Your task to perform on an android device: check the backup settings in the google photos Image 0: 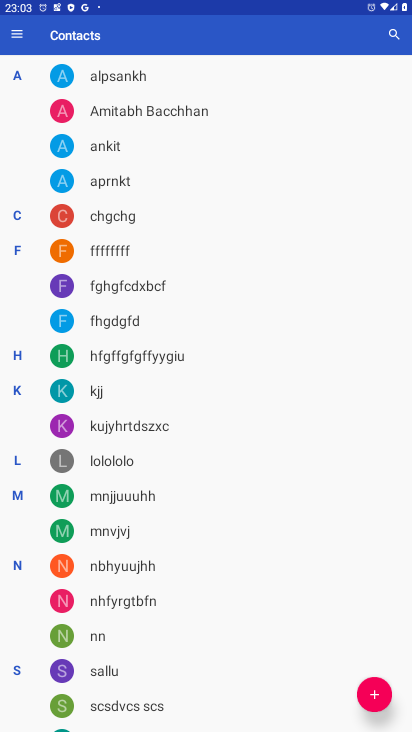
Step 0: press home button
Your task to perform on an android device: check the backup settings in the google photos Image 1: 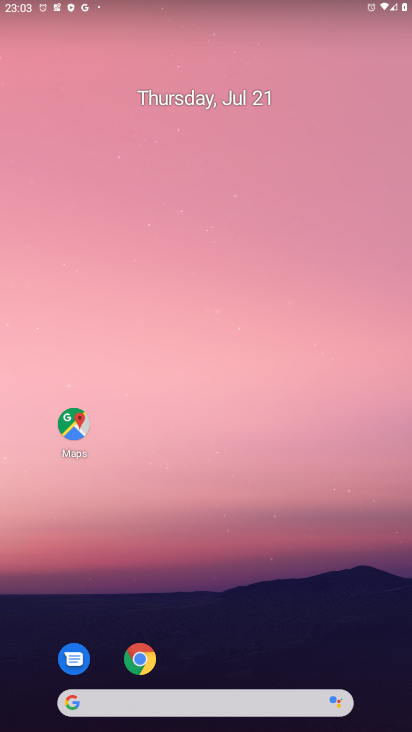
Step 1: drag from (191, 700) to (197, 149)
Your task to perform on an android device: check the backup settings in the google photos Image 2: 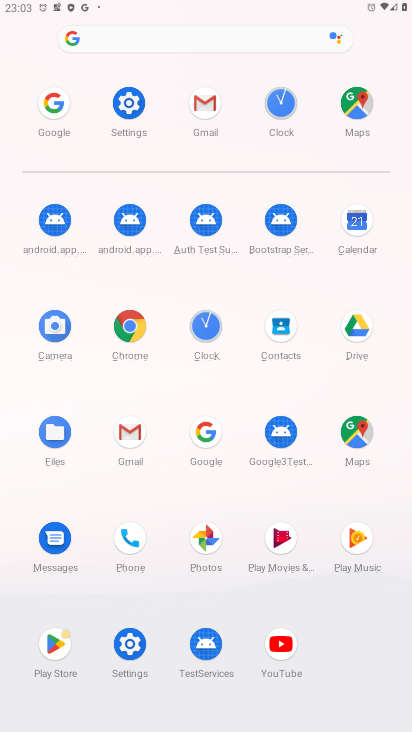
Step 2: click (207, 537)
Your task to perform on an android device: check the backup settings in the google photos Image 3: 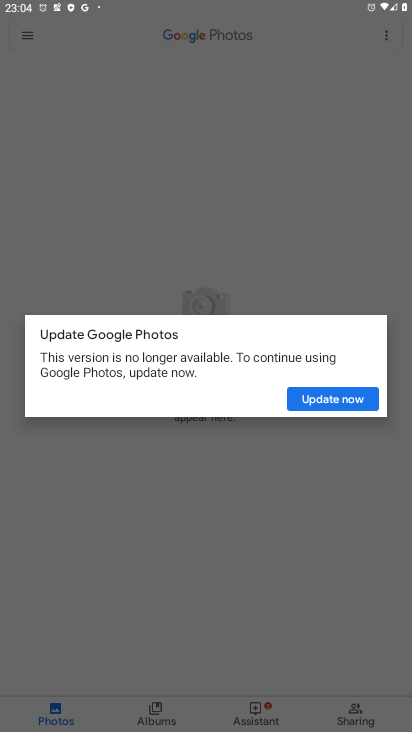
Step 3: click (335, 399)
Your task to perform on an android device: check the backup settings in the google photos Image 4: 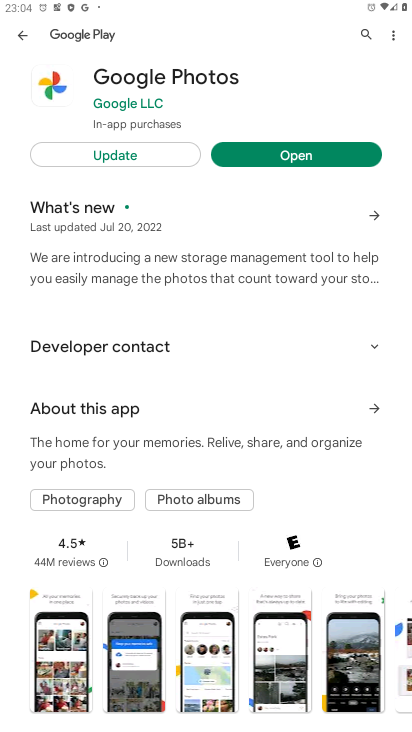
Step 4: click (117, 155)
Your task to perform on an android device: check the backup settings in the google photos Image 5: 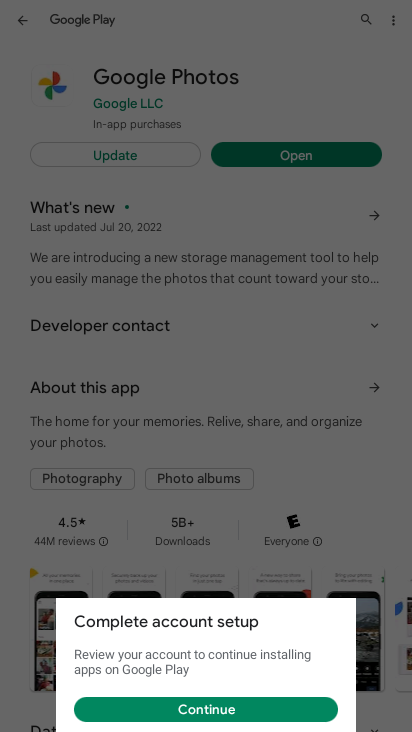
Step 5: click (217, 710)
Your task to perform on an android device: check the backup settings in the google photos Image 6: 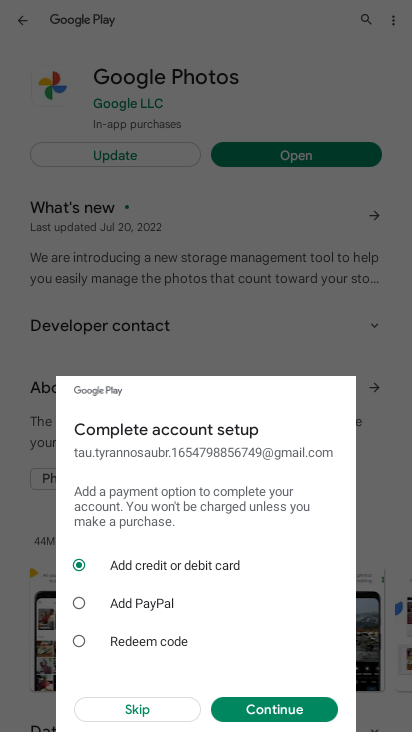
Step 6: click (138, 705)
Your task to perform on an android device: check the backup settings in the google photos Image 7: 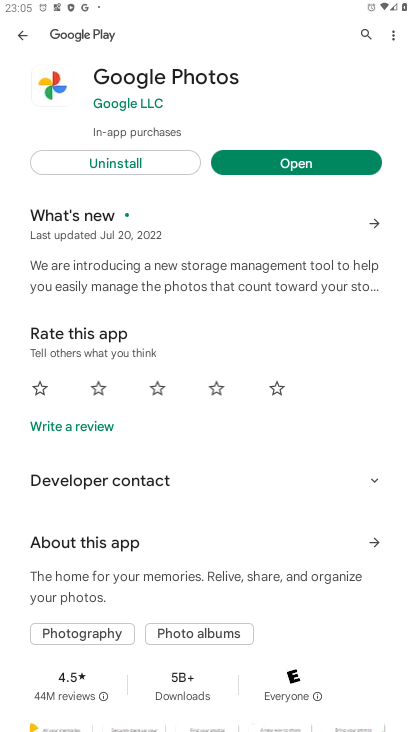
Step 7: click (299, 163)
Your task to perform on an android device: check the backup settings in the google photos Image 8: 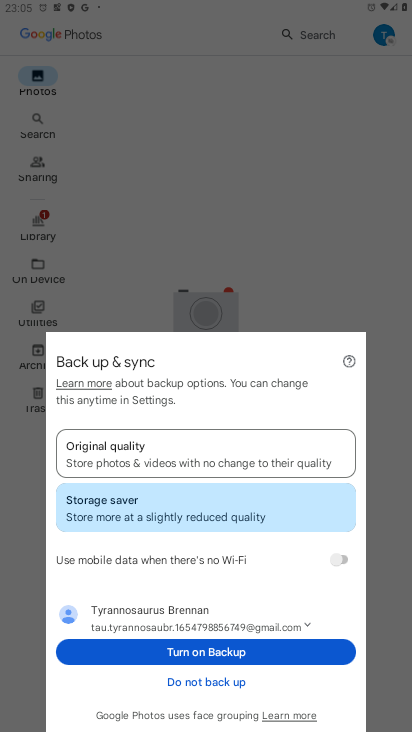
Step 8: click (270, 658)
Your task to perform on an android device: check the backup settings in the google photos Image 9: 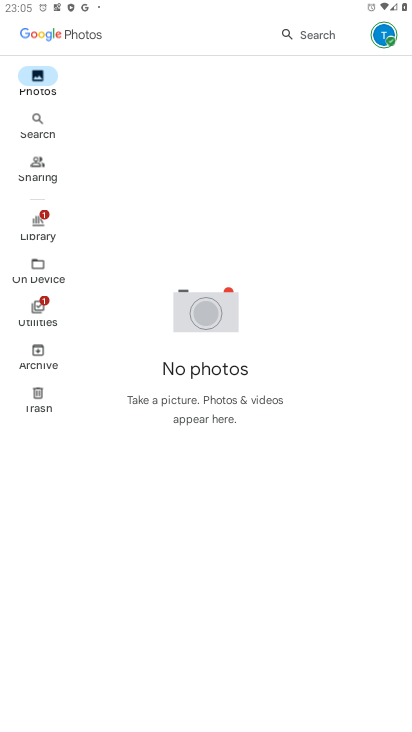
Step 9: click (383, 40)
Your task to perform on an android device: check the backup settings in the google photos Image 10: 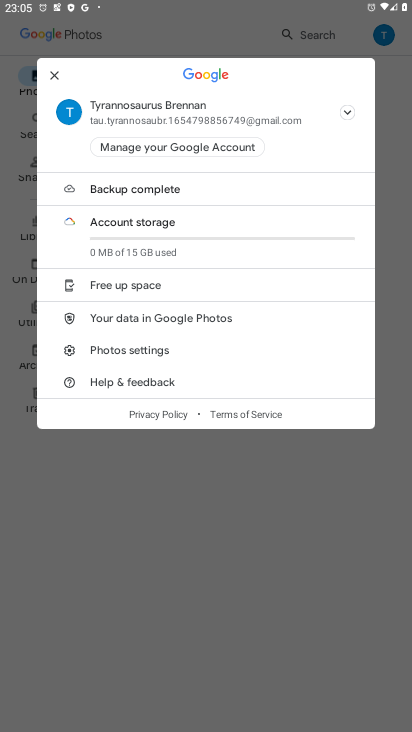
Step 10: click (146, 354)
Your task to perform on an android device: check the backup settings in the google photos Image 11: 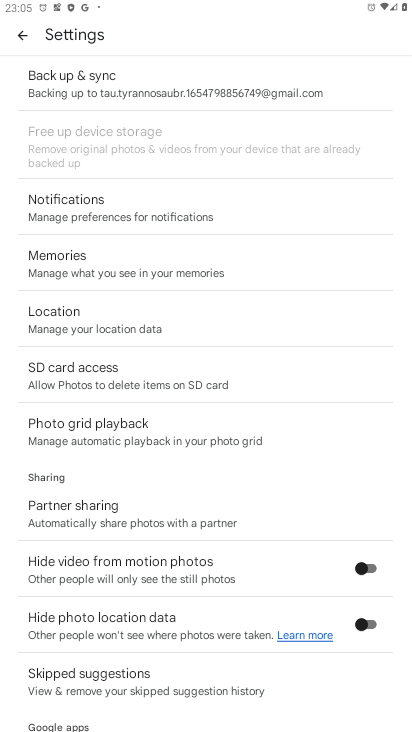
Step 11: click (234, 90)
Your task to perform on an android device: check the backup settings in the google photos Image 12: 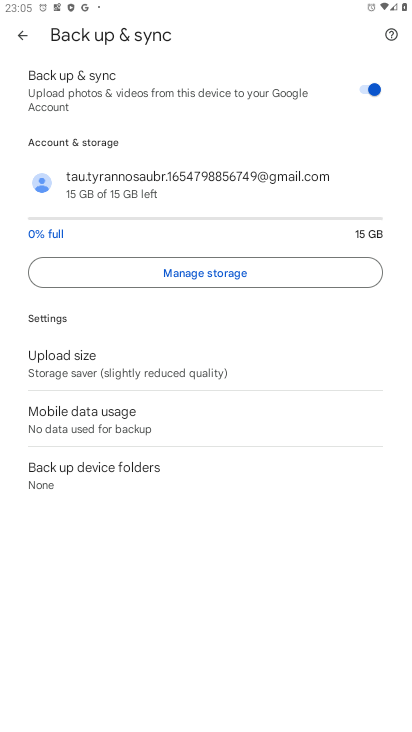
Step 12: task complete